Your task to perform on an android device: turn notification dots on Image 0: 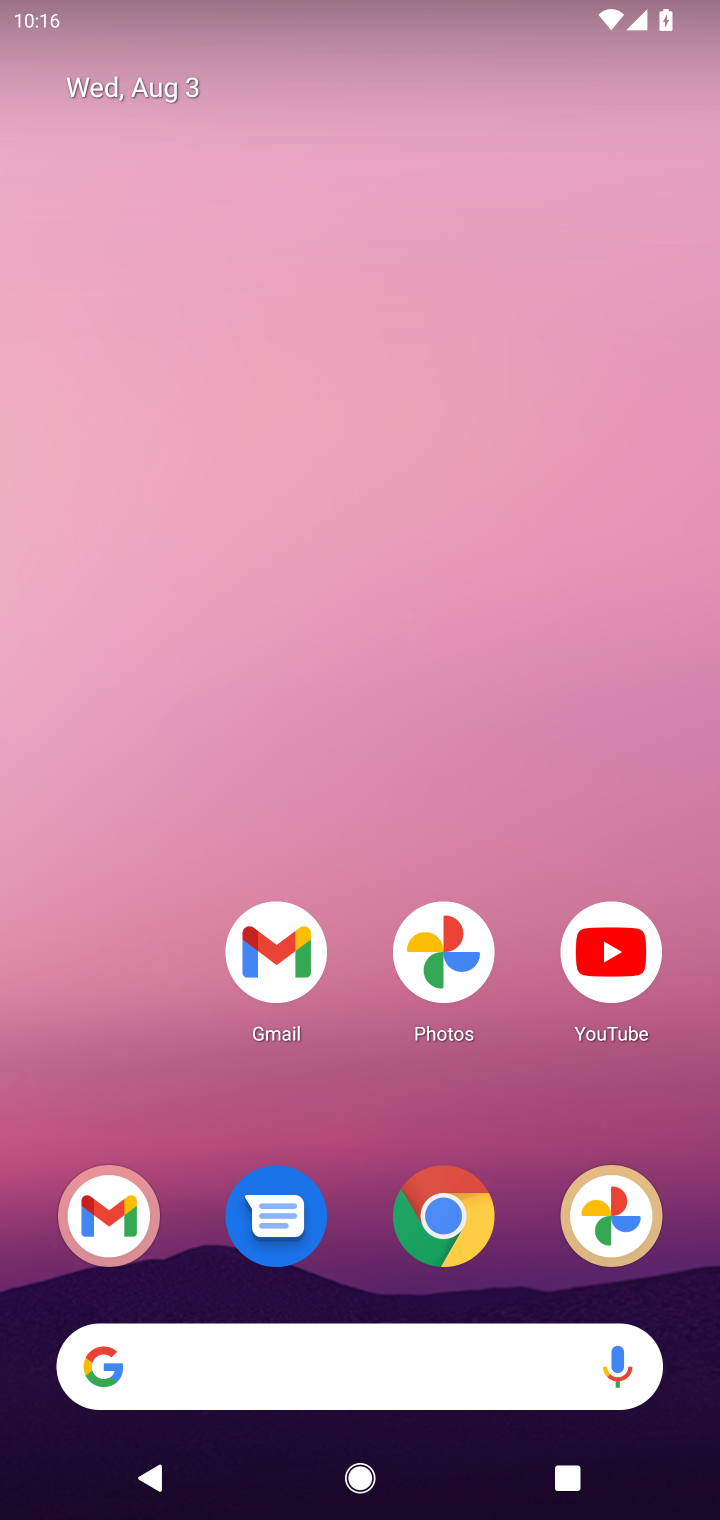
Step 0: drag from (102, 1026) to (250, 1)
Your task to perform on an android device: turn notification dots on Image 1: 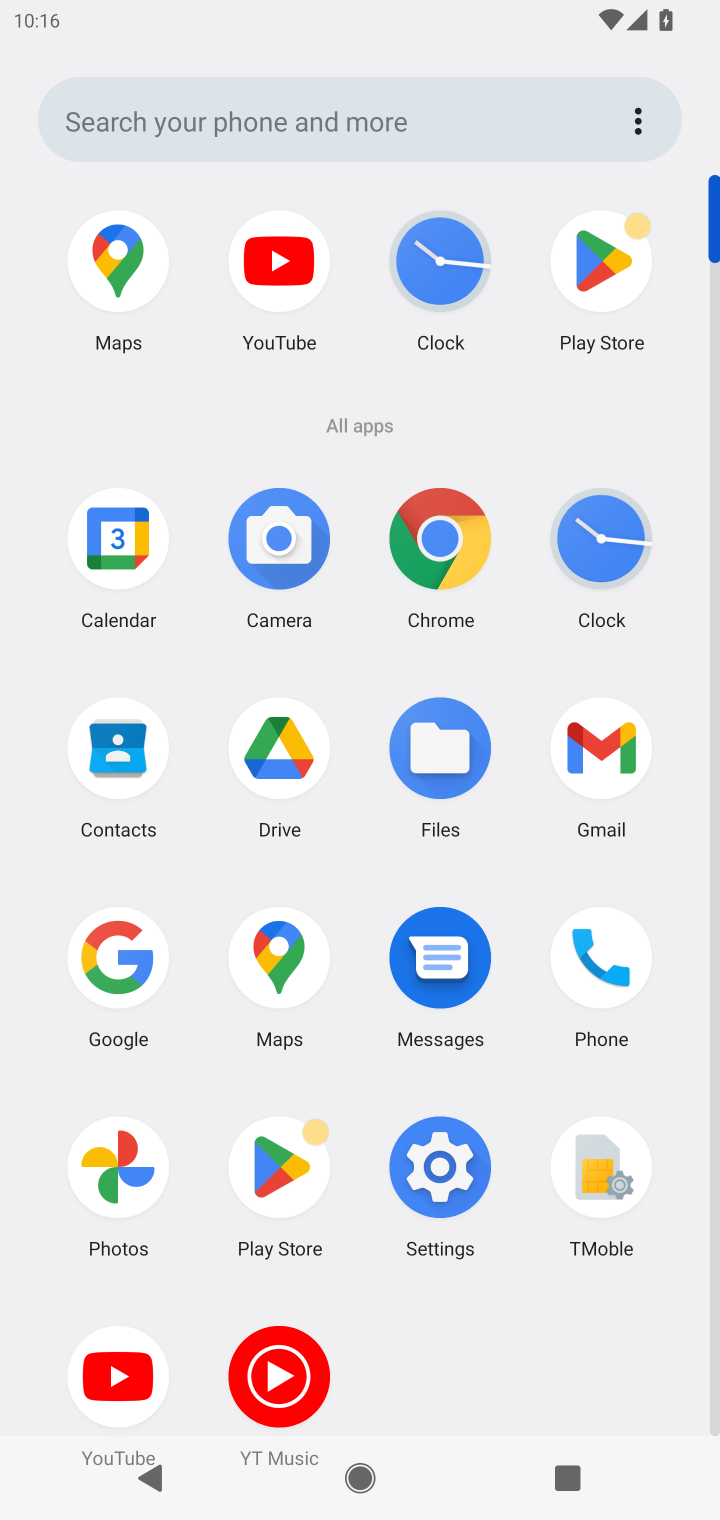
Step 1: click (437, 1203)
Your task to perform on an android device: turn notification dots on Image 2: 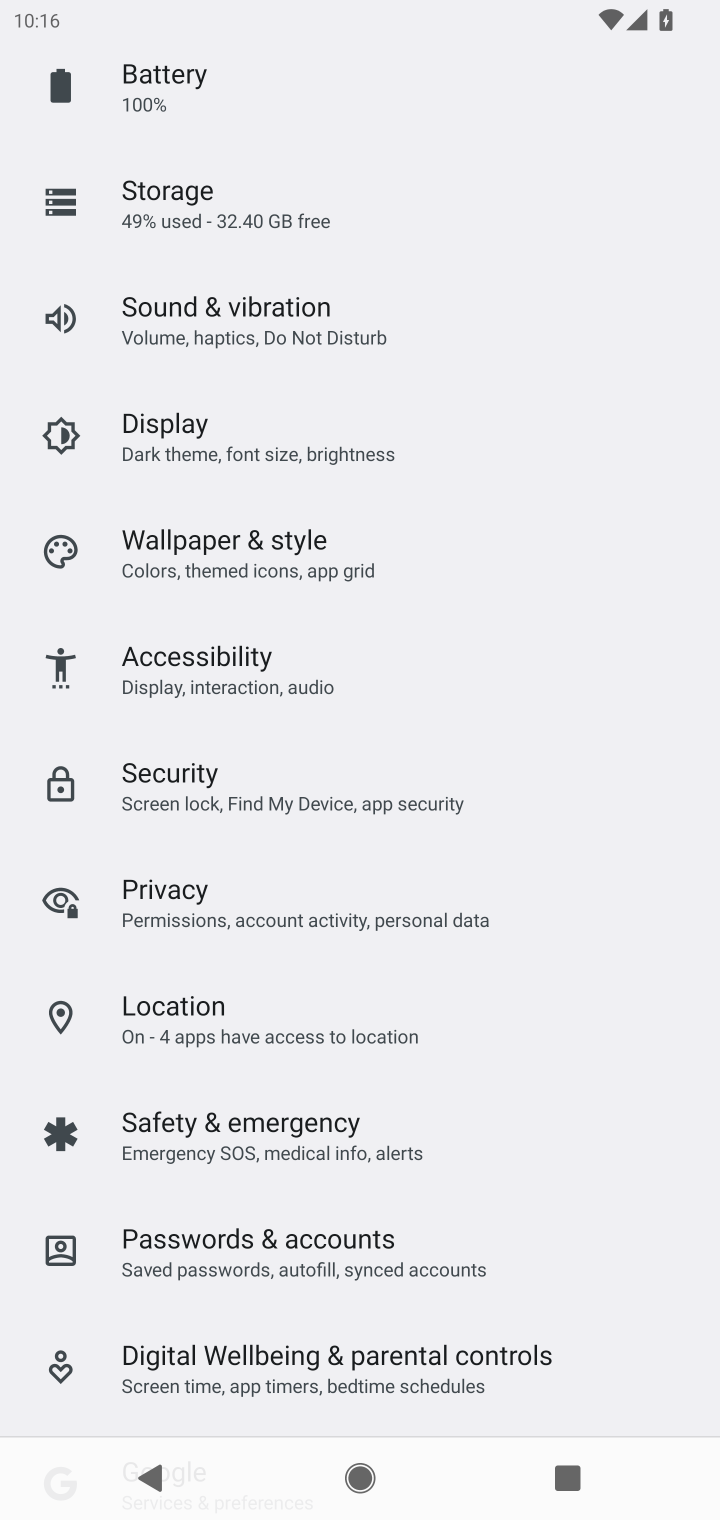
Step 2: drag from (399, 355) to (267, 1214)
Your task to perform on an android device: turn notification dots on Image 3: 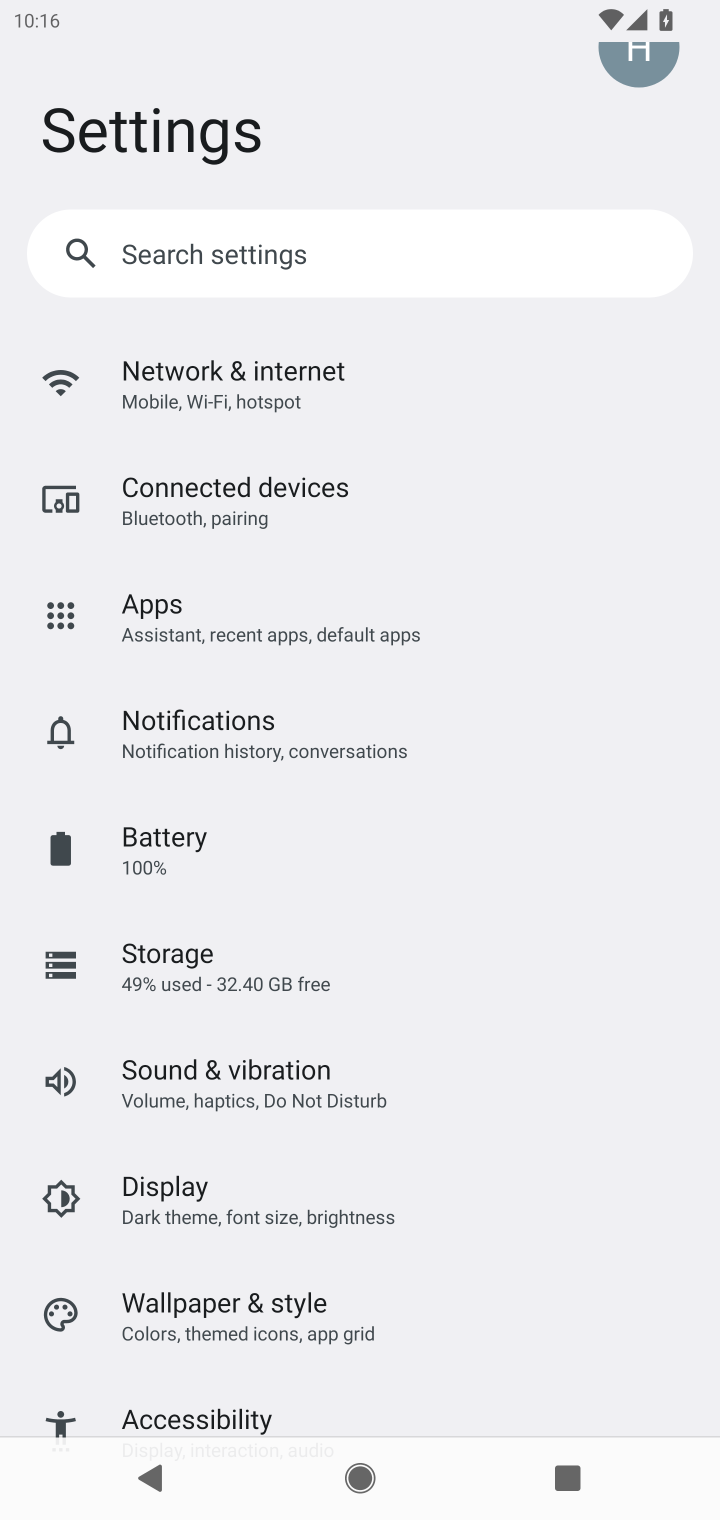
Step 3: click (245, 707)
Your task to perform on an android device: turn notification dots on Image 4: 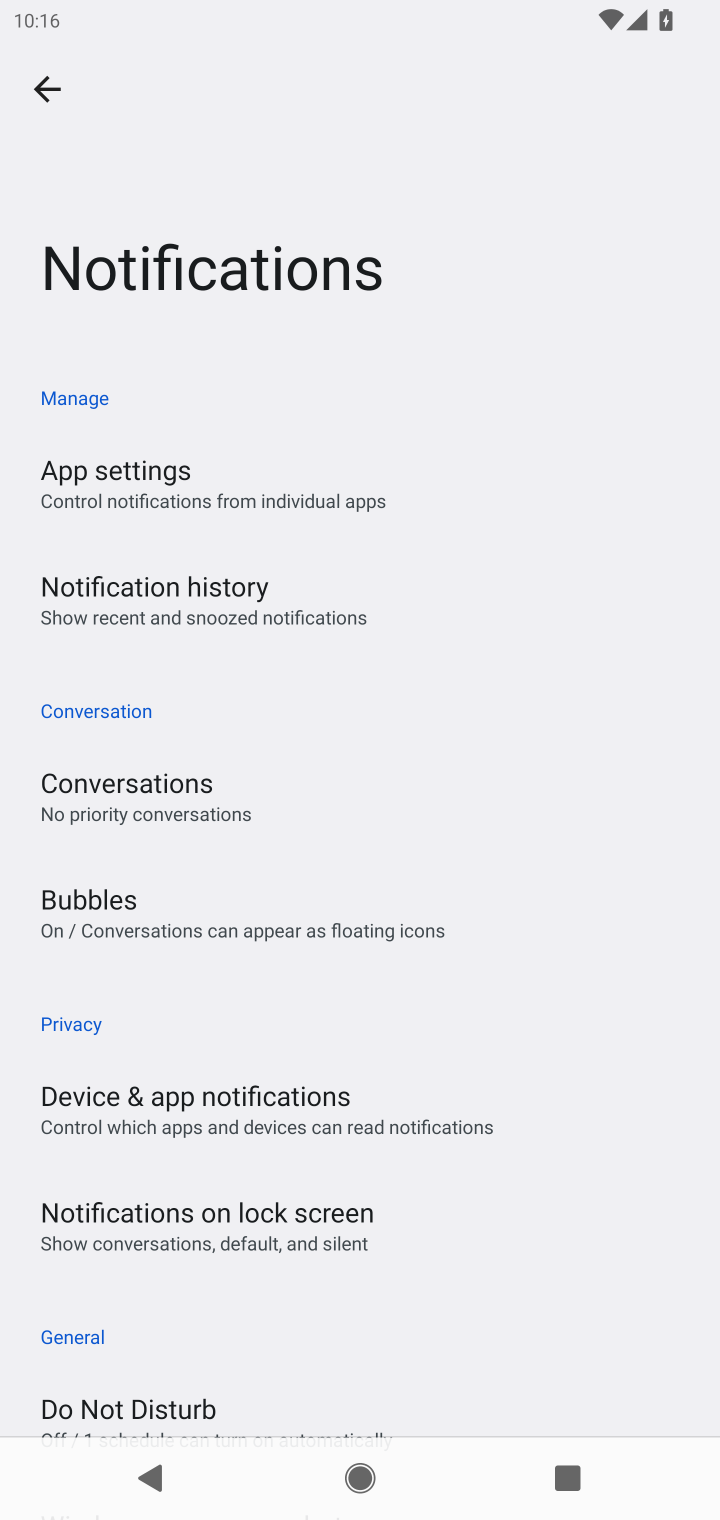
Step 4: task complete